Your task to perform on an android device: What is the news today? Image 0: 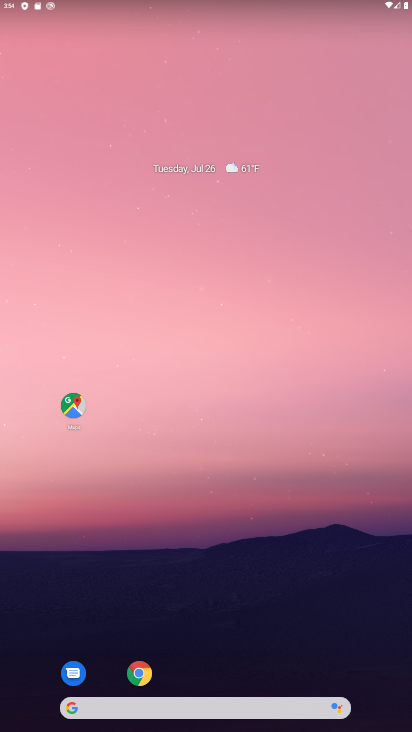
Step 0: press home button
Your task to perform on an android device: What is the news today? Image 1: 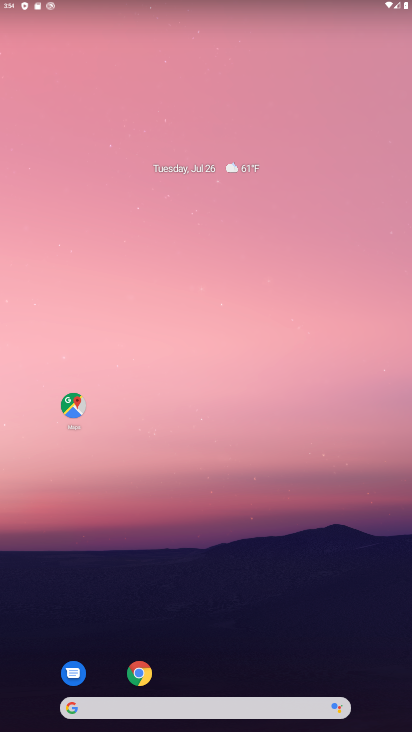
Step 1: task complete